Your task to perform on an android device: Open the phone app and click the voicemail tab. Image 0: 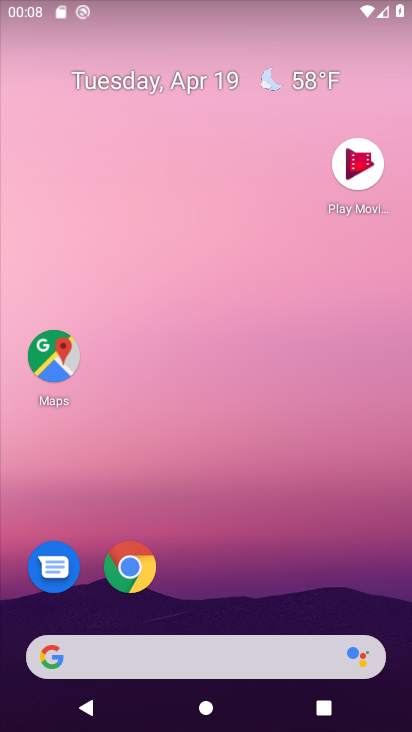
Step 0: drag from (206, 429) to (286, 46)
Your task to perform on an android device: Open the phone app and click the voicemail tab. Image 1: 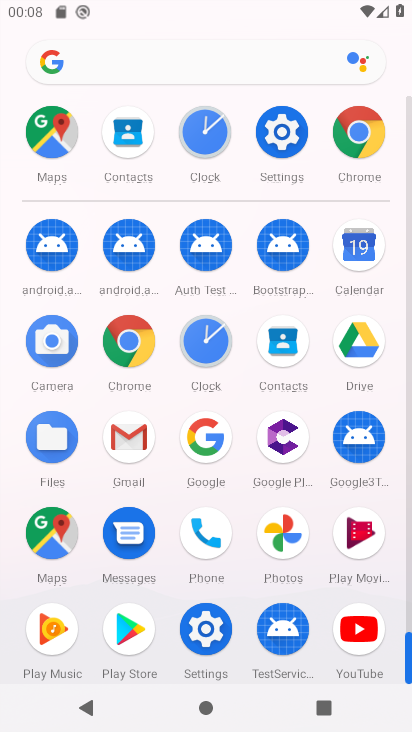
Step 1: drag from (173, 596) to (211, 178)
Your task to perform on an android device: Open the phone app and click the voicemail tab. Image 2: 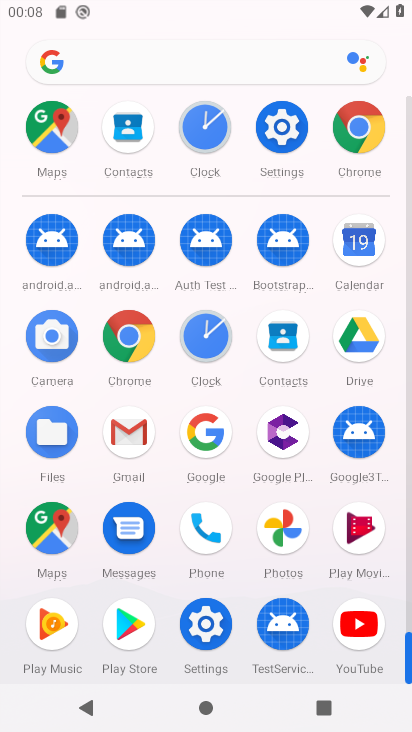
Step 2: drag from (152, 561) to (156, 289)
Your task to perform on an android device: Open the phone app and click the voicemail tab. Image 3: 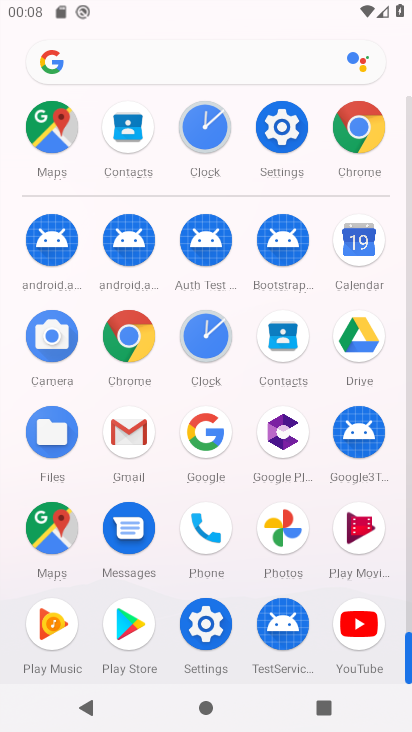
Step 3: click (208, 527)
Your task to perform on an android device: Open the phone app and click the voicemail tab. Image 4: 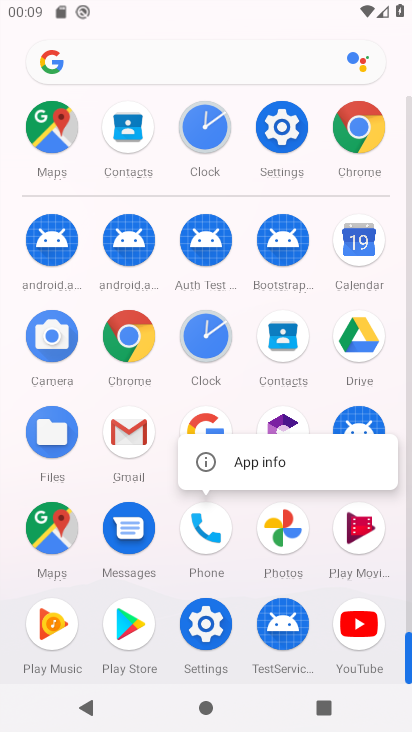
Step 4: click (235, 470)
Your task to perform on an android device: Open the phone app and click the voicemail tab. Image 5: 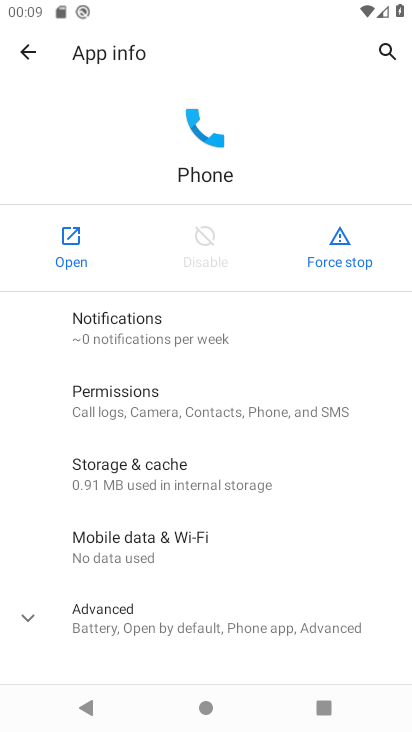
Step 5: drag from (159, 526) to (163, 129)
Your task to perform on an android device: Open the phone app and click the voicemail tab. Image 6: 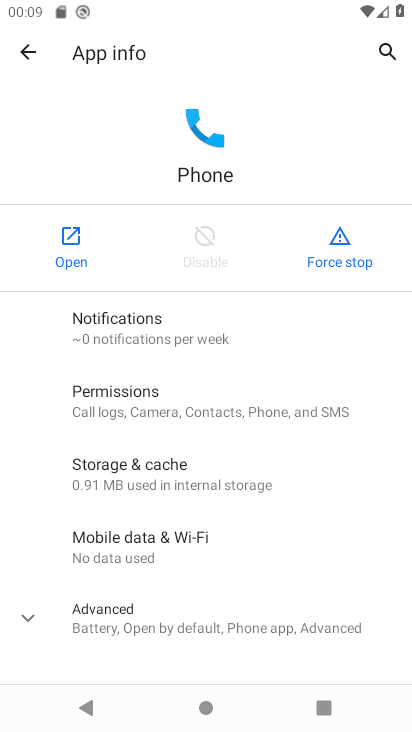
Step 6: click (43, 249)
Your task to perform on an android device: Open the phone app and click the voicemail tab. Image 7: 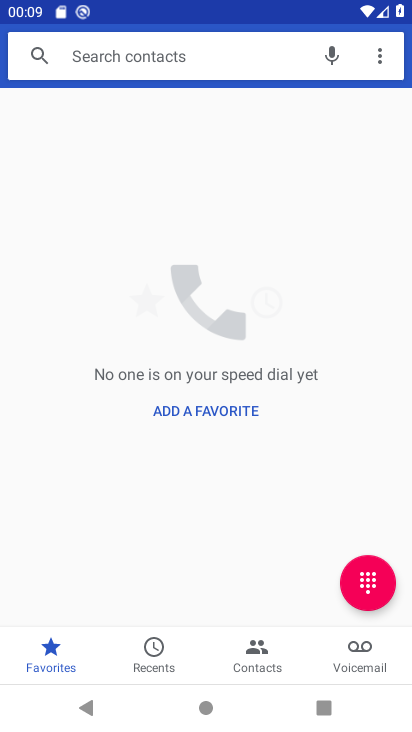
Step 7: click (354, 658)
Your task to perform on an android device: Open the phone app and click the voicemail tab. Image 8: 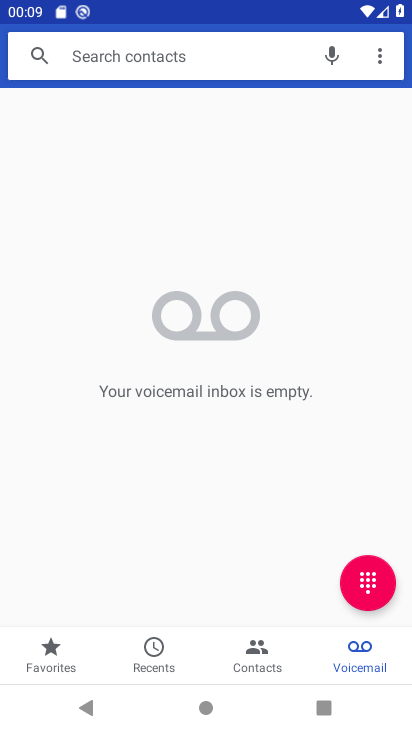
Step 8: task complete